Your task to perform on an android device: Add dell xps to the cart on costco, then select checkout. Image 0: 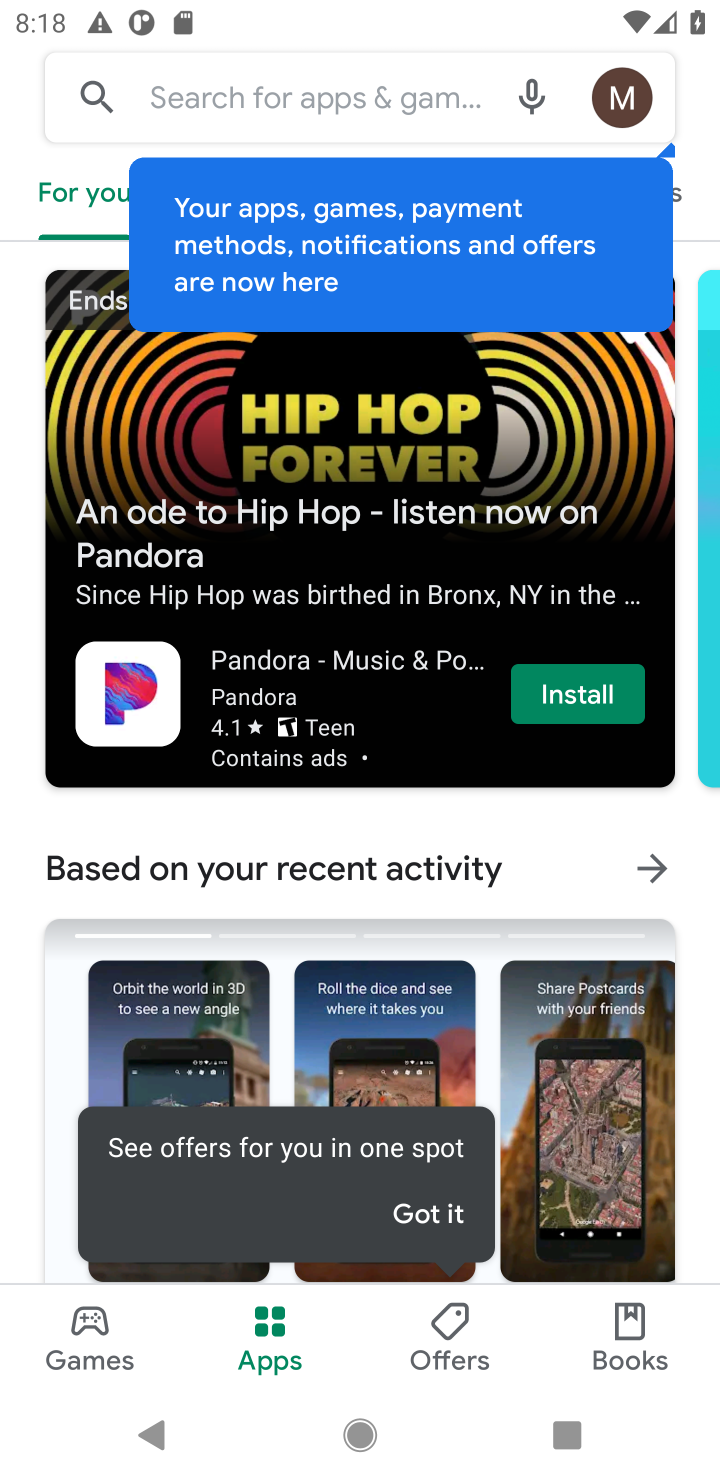
Step 0: press home button
Your task to perform on an android device: Add dell xps to the cart on costco, then select checkout. Image 1: 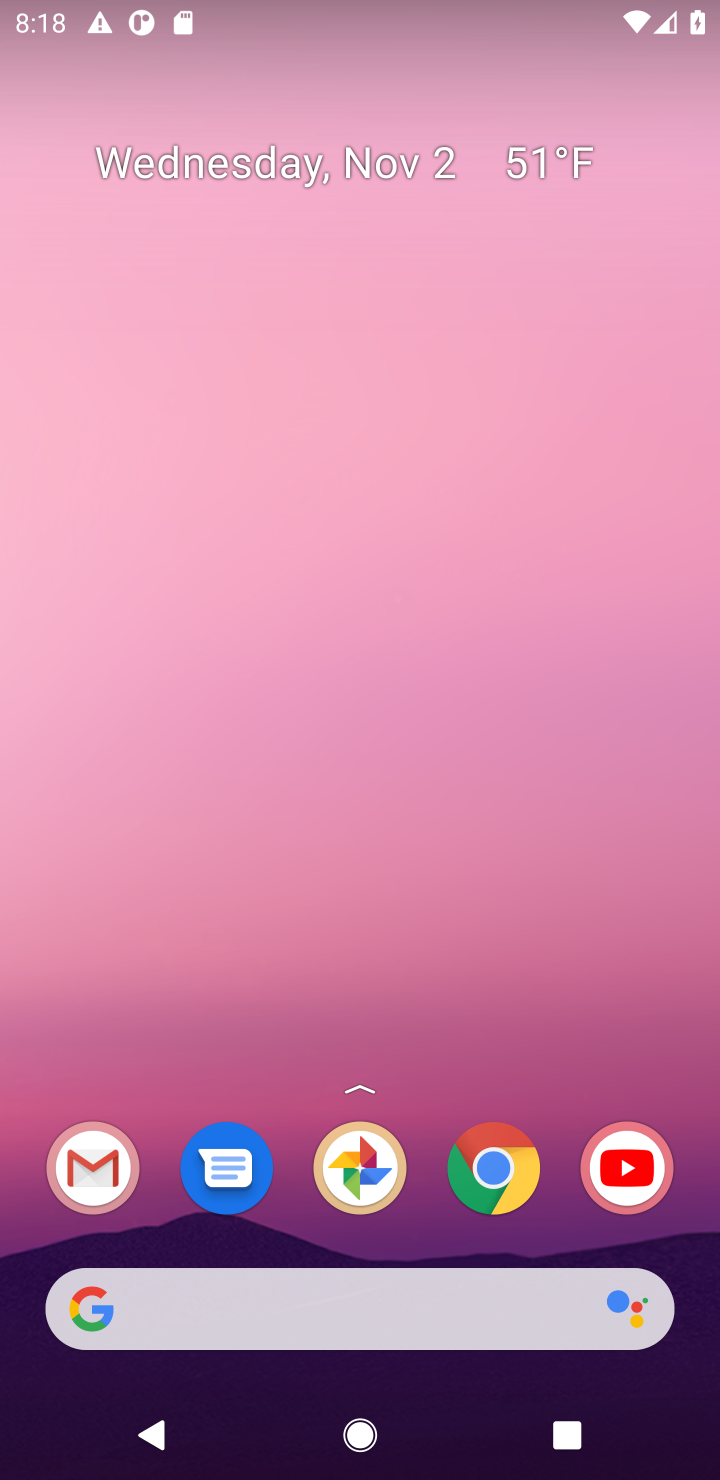
Step 1: click (336, 1312)
Your task to perform on an android device: Add dell xps to the cart on costco, then select checkout. Image 2: 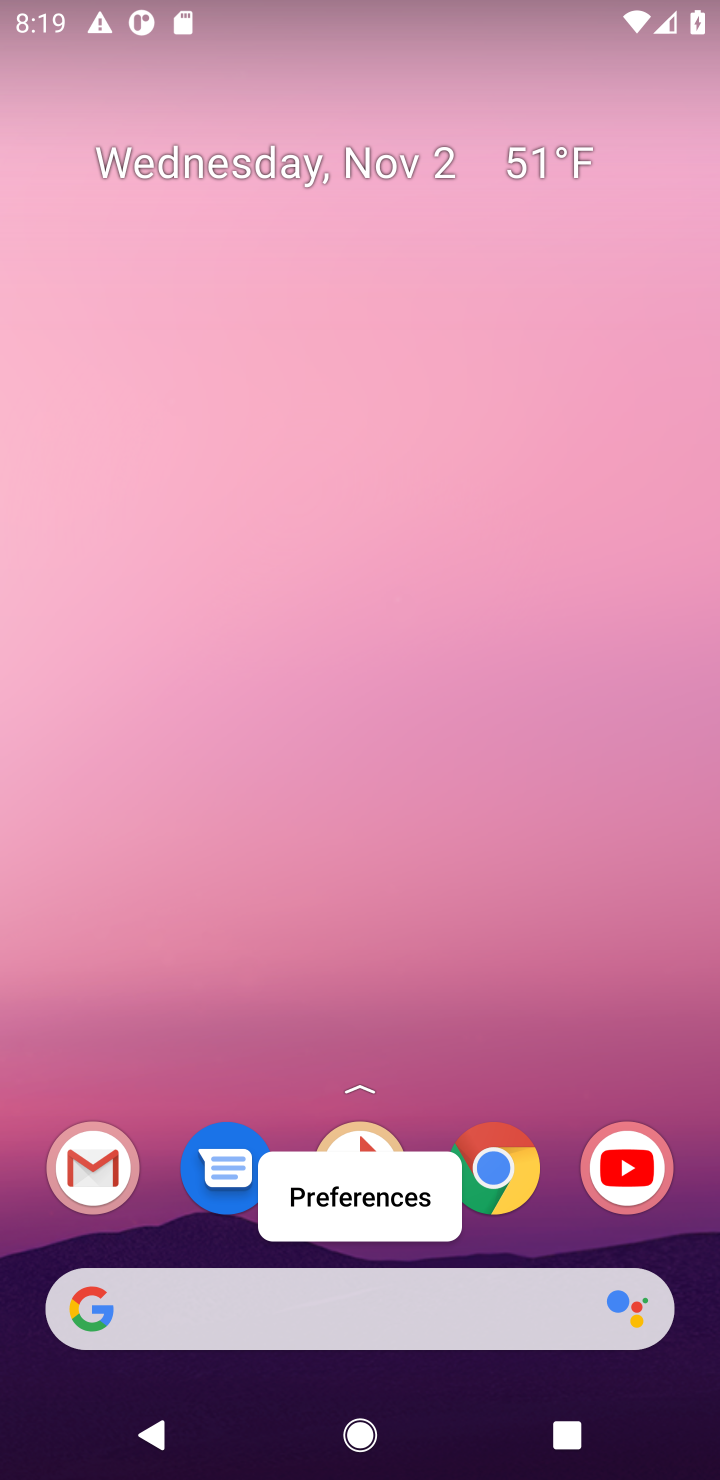
Step 2: type "costco"
Your task to perform on an android device: Add dell xps to the cart on costco, then select checkout. Image 3: 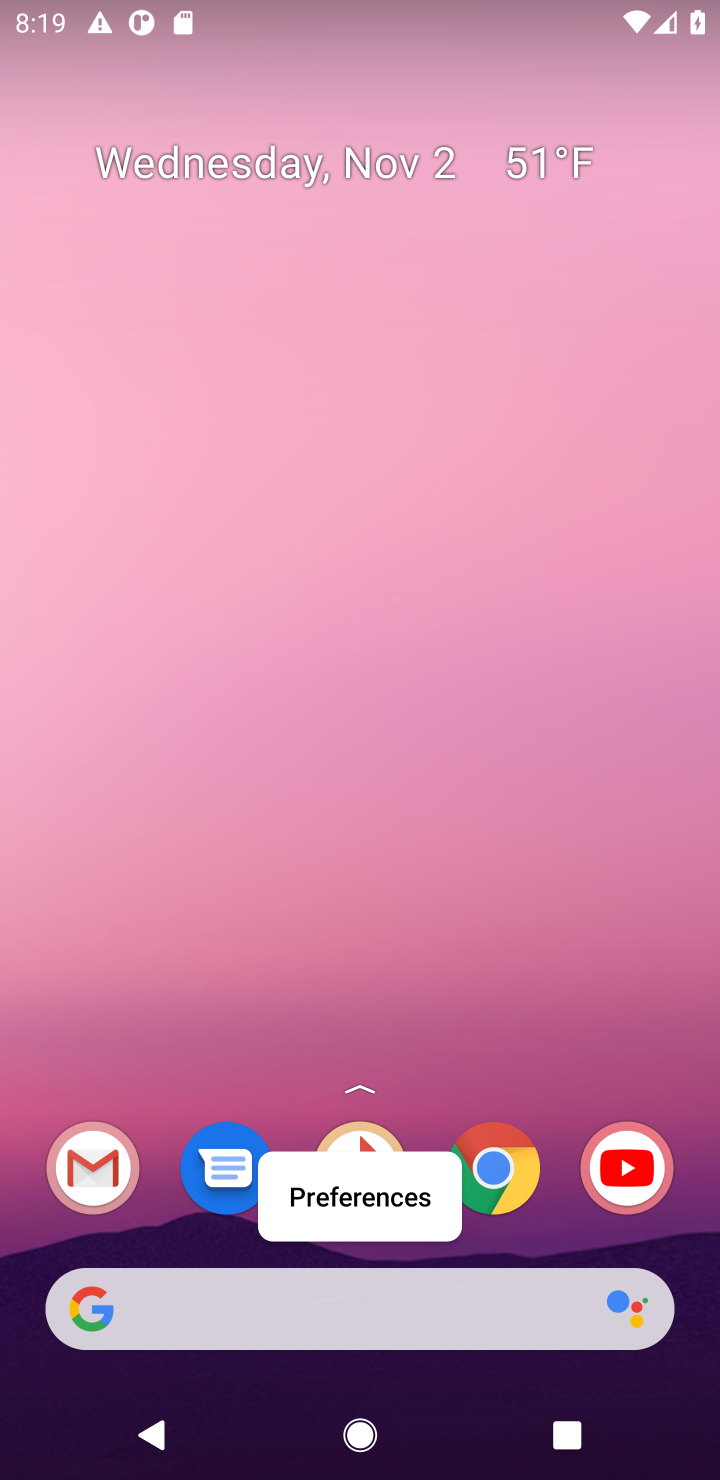
Step 3: click (376, 1292)
Your task to perform on an android device: Add dell xps to the cart on costco, then select checkout. Image 4: 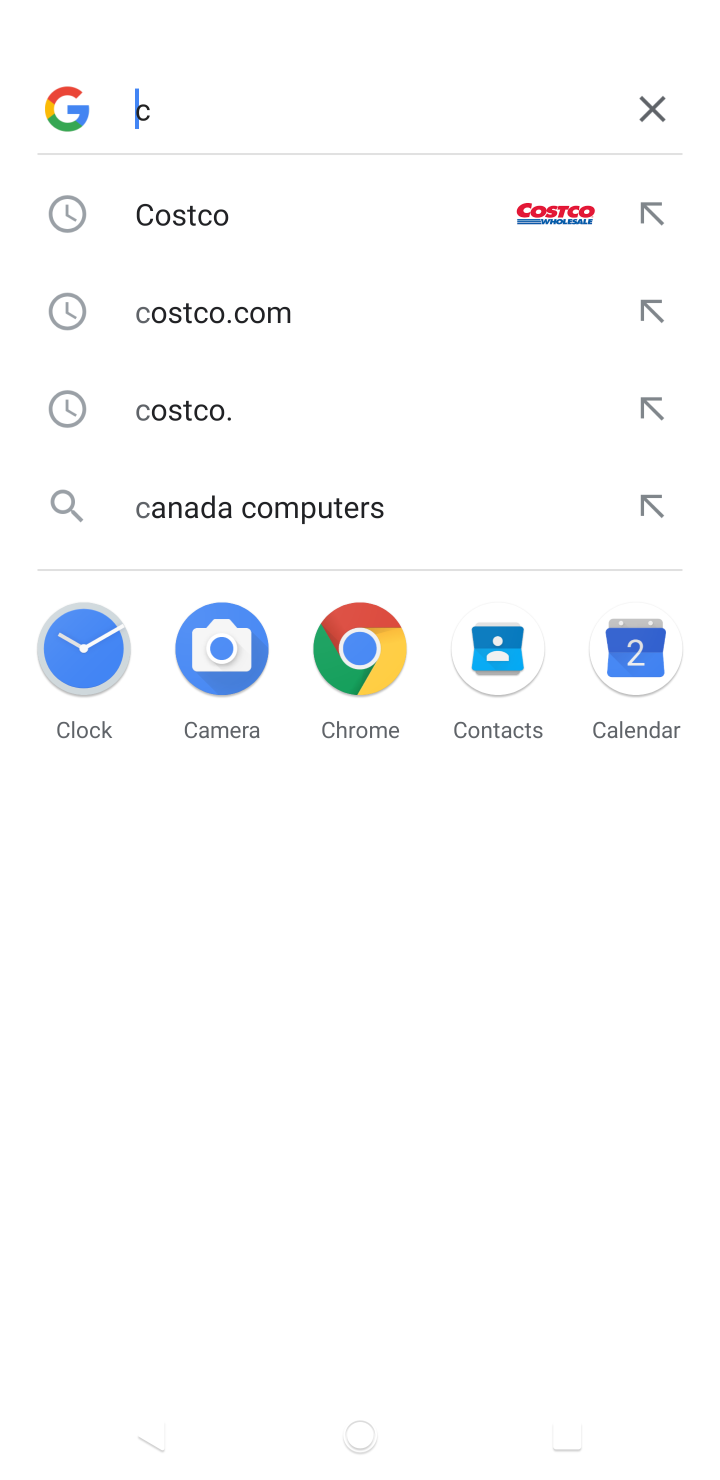
Step 4: click (519, 1170)
Your task to perform on an android device: Add dell xps to the cart on costco, then select checkout. Image 5: 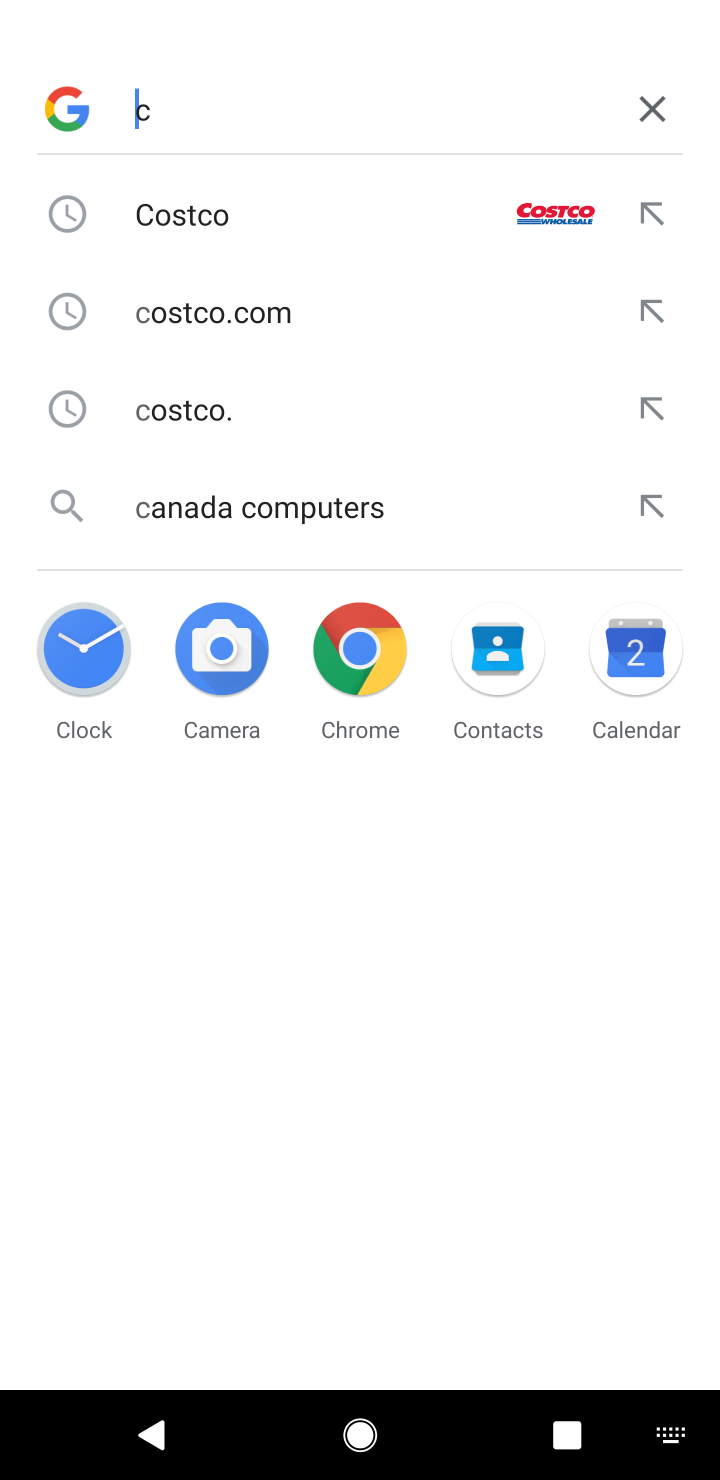
Step 5: click (203, 219)
Your task to perform on an android device: Add dell xps to the cart on costco, then select checkout. Image 6: 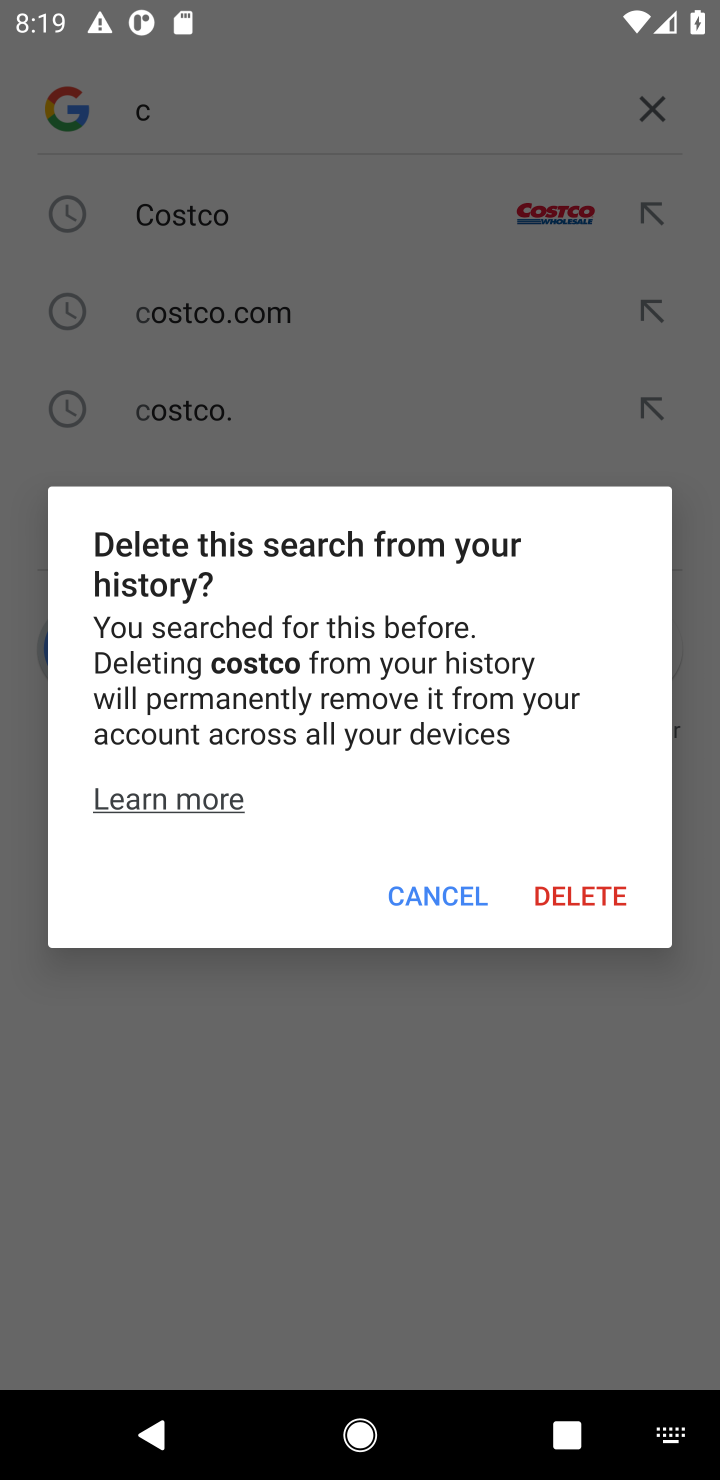
Step 6: click (426, 900)
Your task to perform on an android device: Add dell xps to the cart on costco, then select checkout. Image 7: 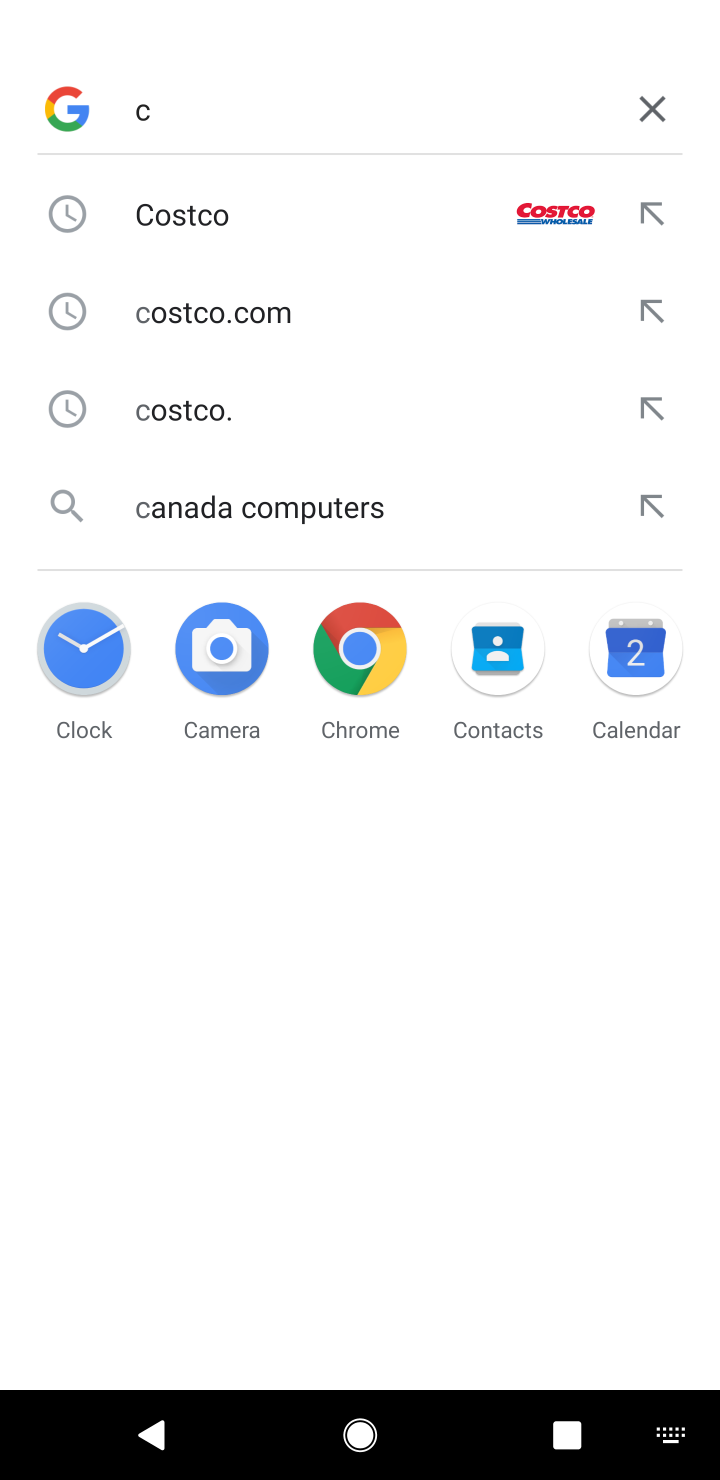
Step 7: click (71, 319)
Your task to perform on an android device: Add dell xps to the cart on costco, then select checkout. Image 8: 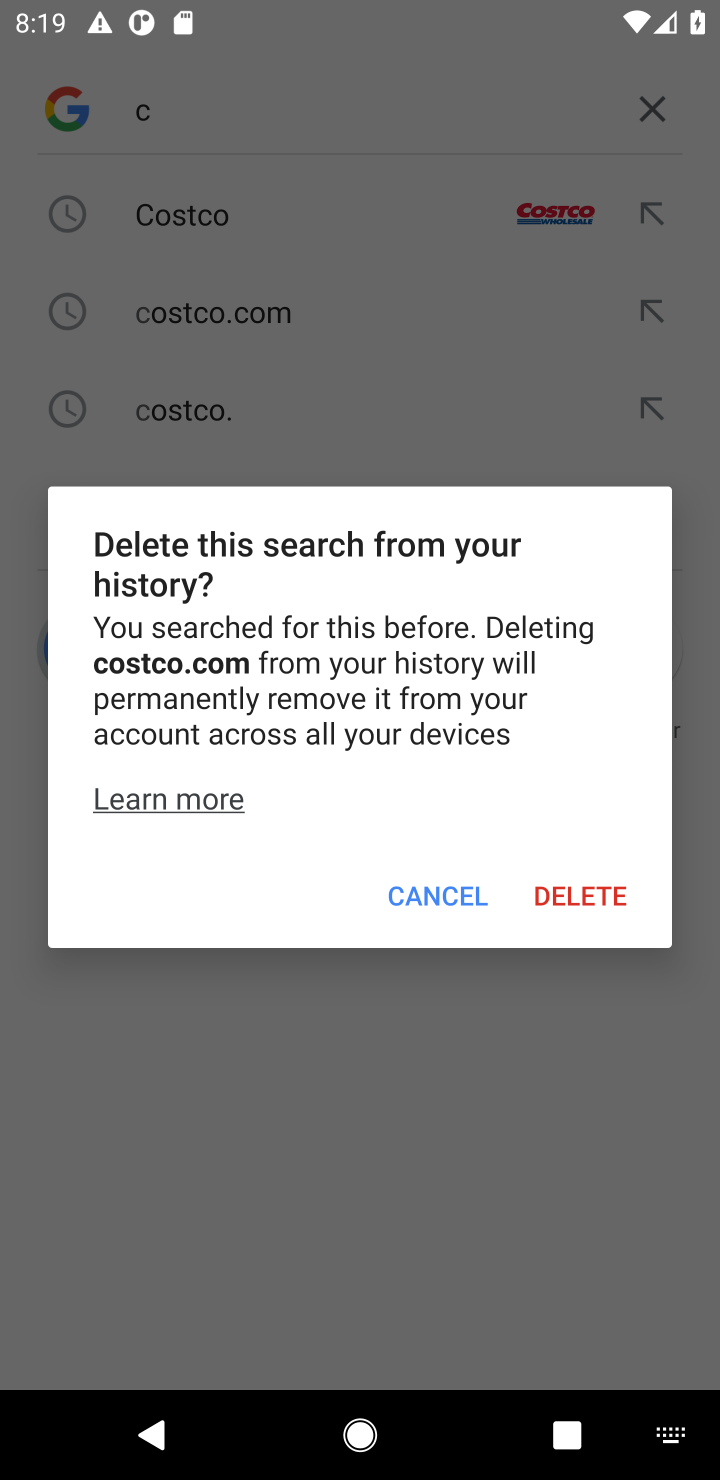
Step 8: click (425, 869)
Your task to perform on an android device: Add dell xps to the cart on costco, then select checkout. Image 9: 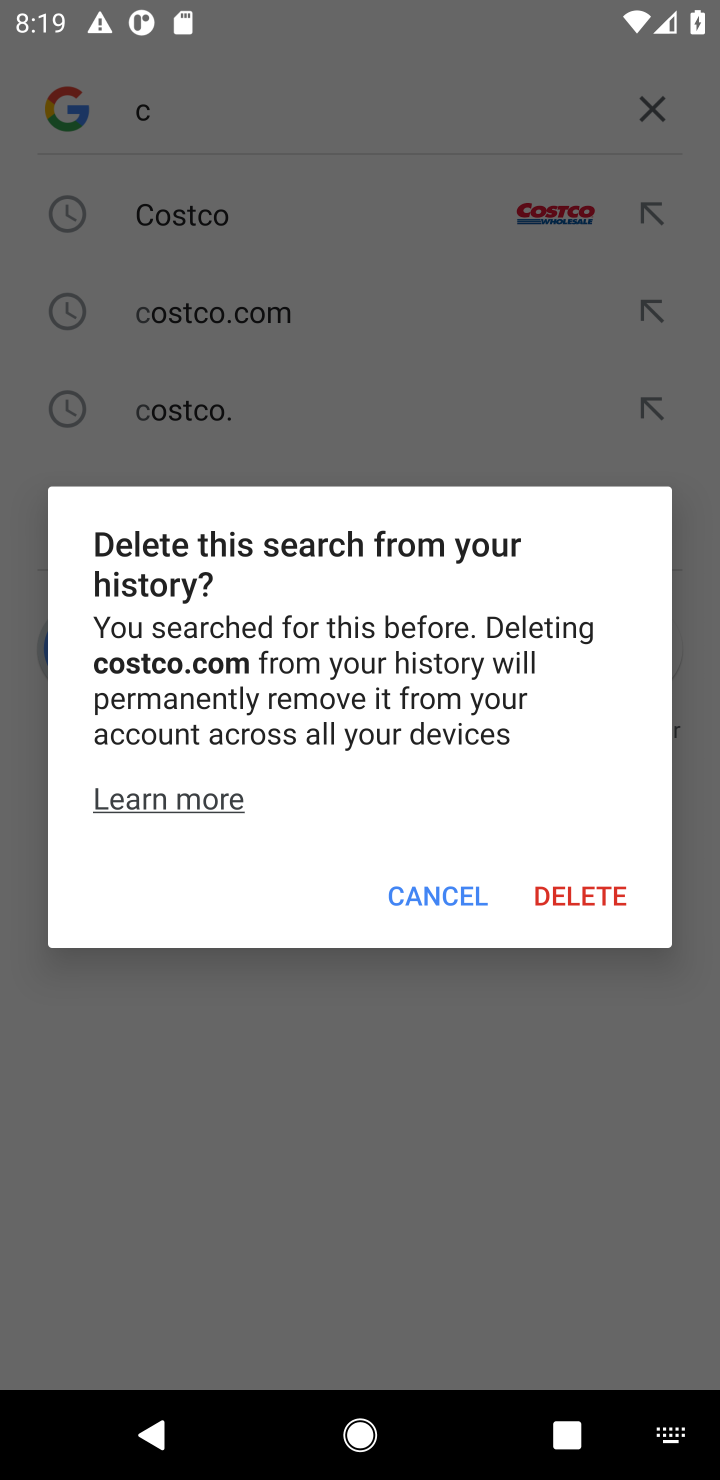
Step 9: click (432, 887)
Your task to perform on an android device: Add dell xps to the cart on costco, then select checkout. Image 10: 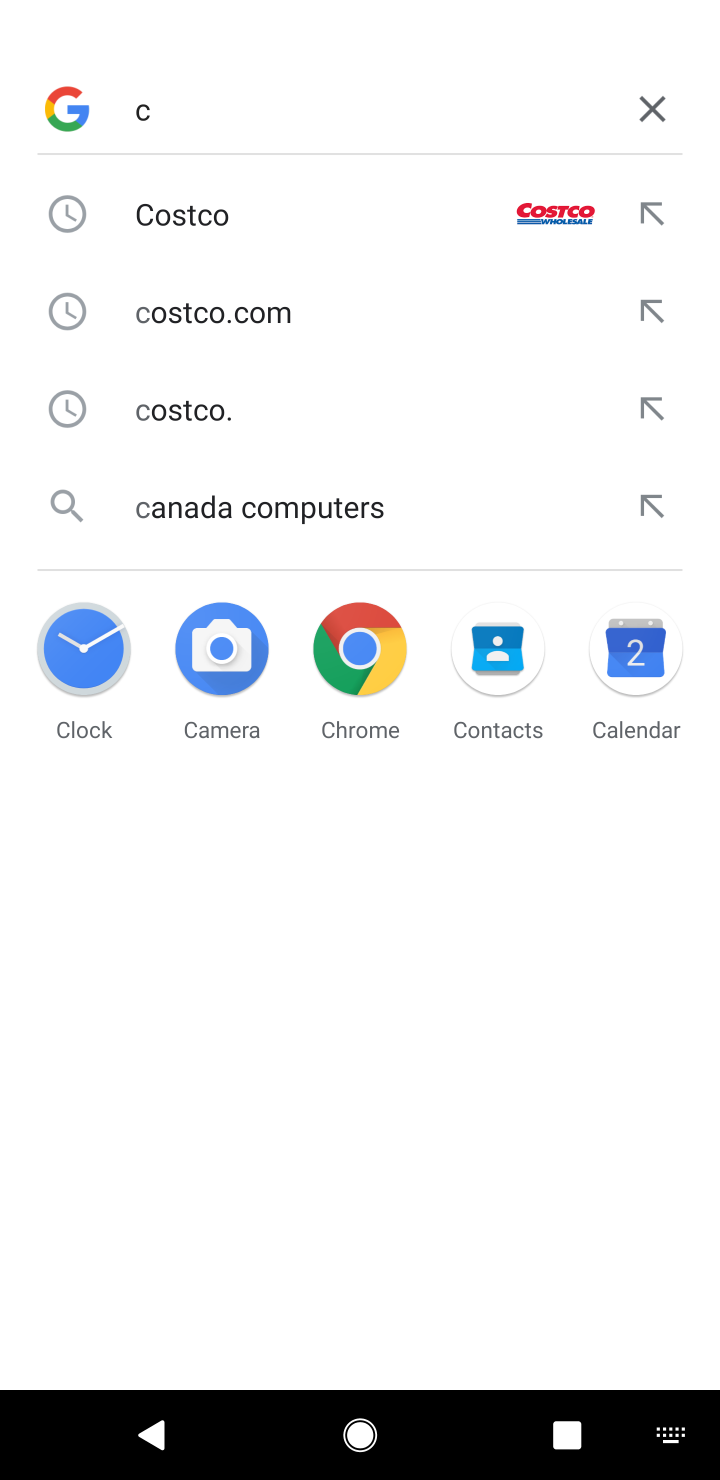
Step 10: click (646, 107)
Your task to perform on an android device: Add dell xps to the cart on costco, then select checkout. Image 11: 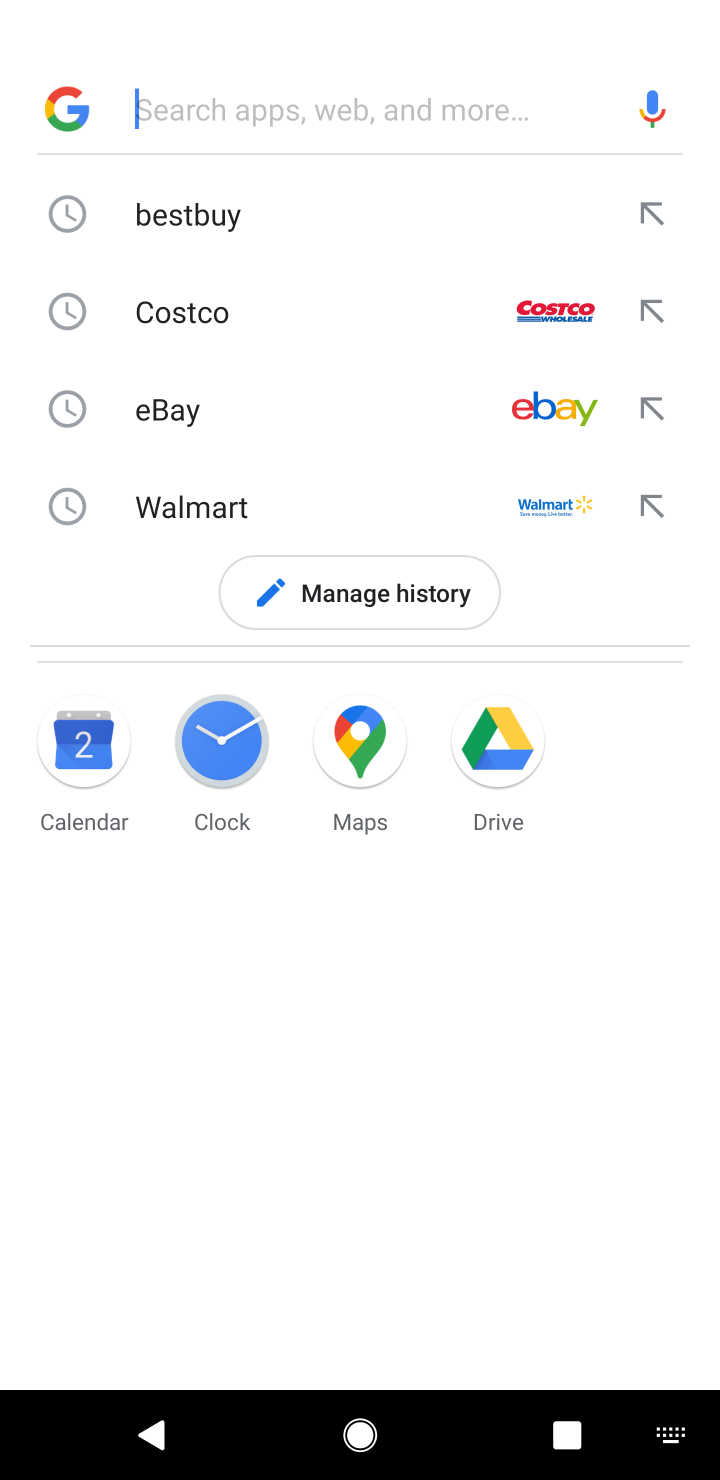
Step 11: click (243, 303)
Your task to perform on an android device: Add dell xps to the cart on costco, then select checkout. Image 12: 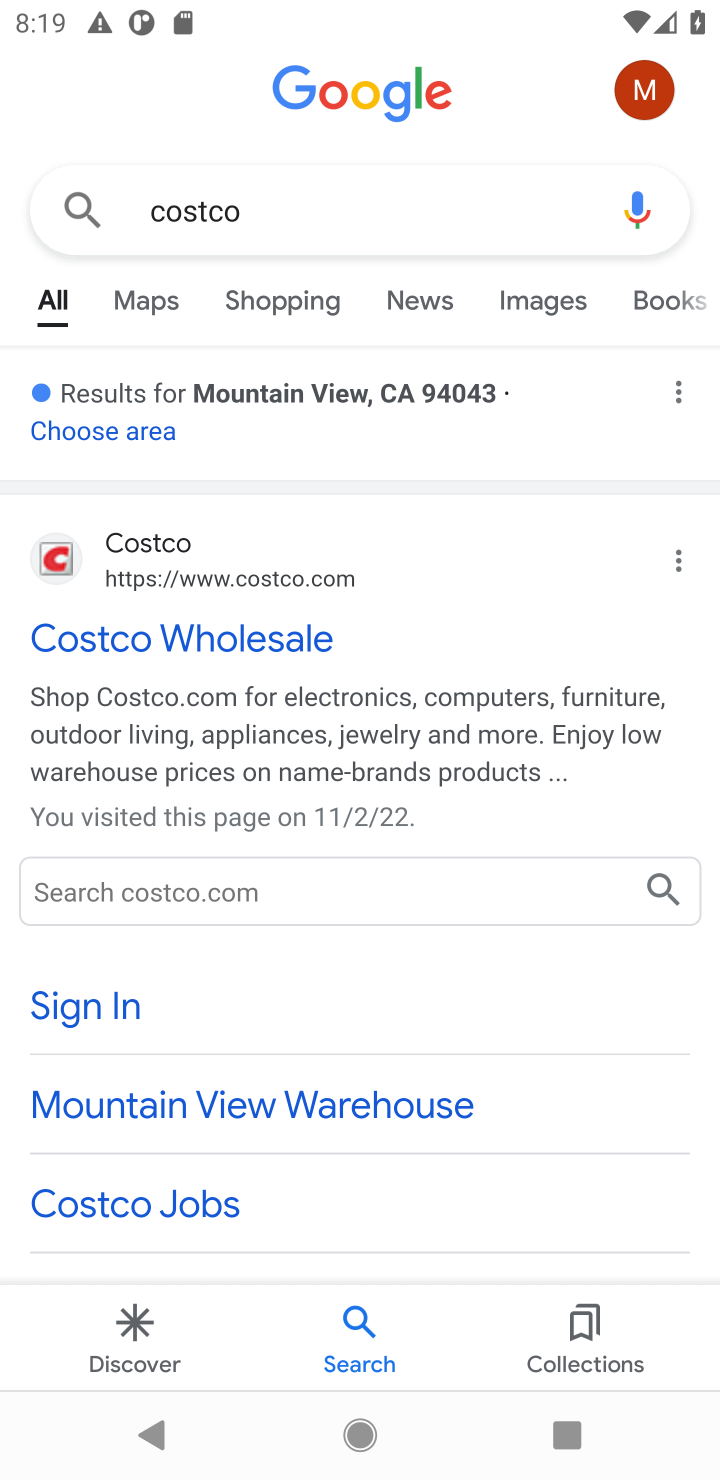
Step 12: click (253, 614)
Your task to perform on an android device: Add dell xps to the cart on costco, then select checkout. Image 13: 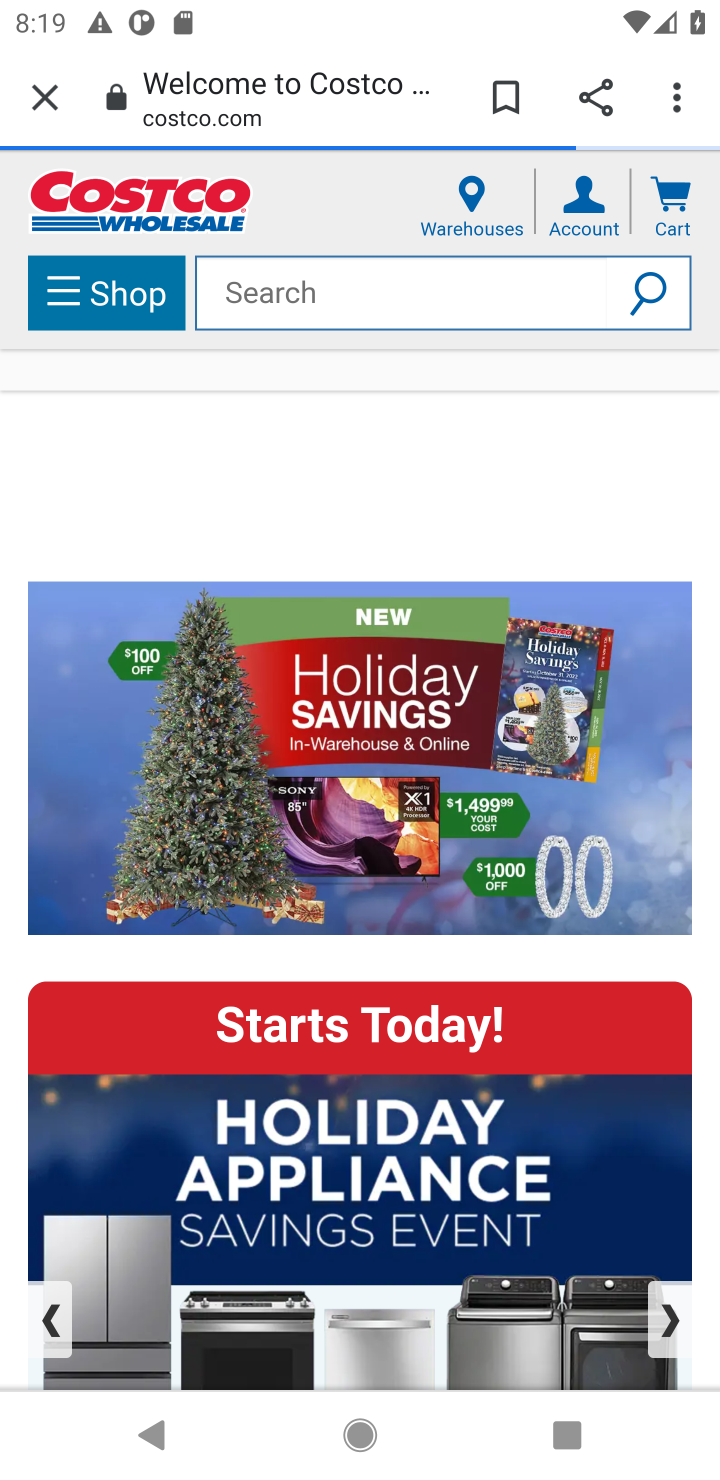
Step 13: click (282, 276)
Your task to perform on an android device: Add dell xps to the cart on costco, then select checkout. Image 14: 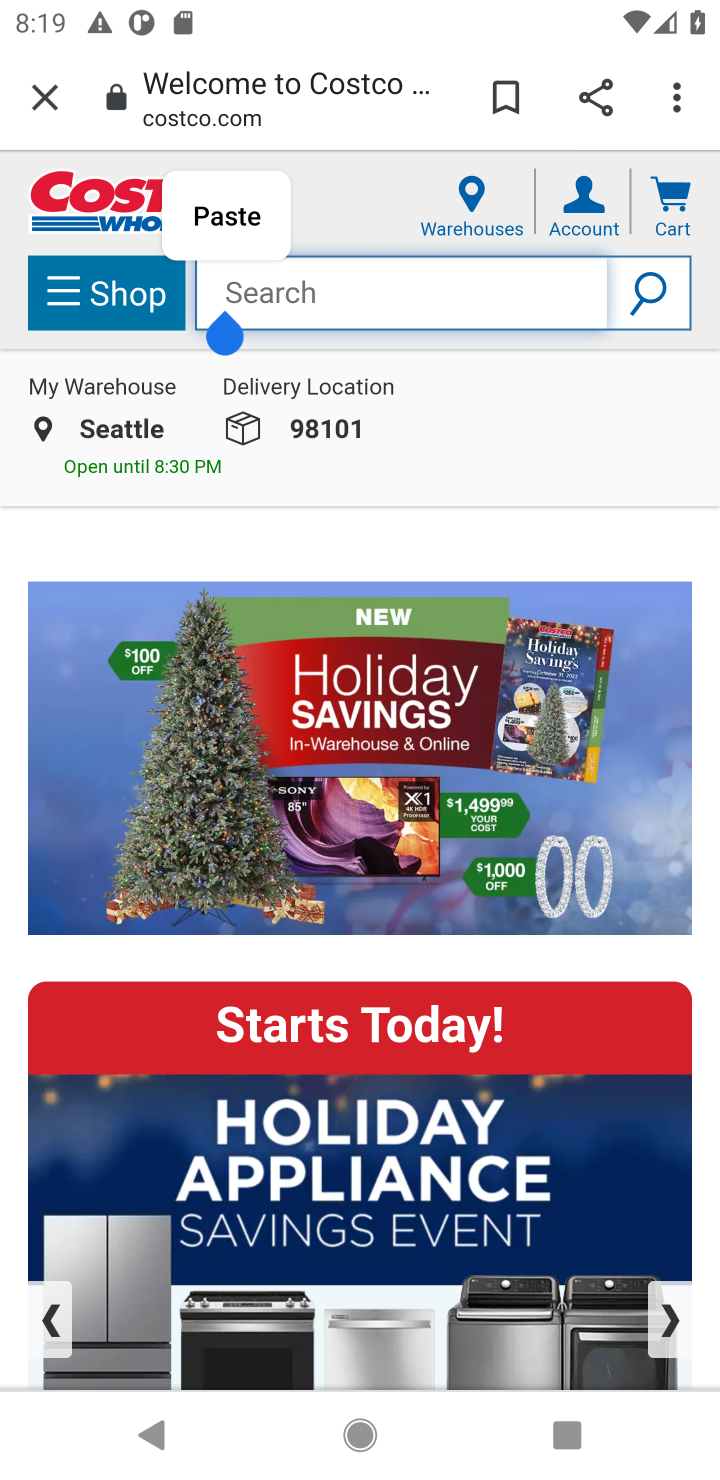
Step 14: type "dell xps"
Your task to perform on an android device: Add dell xps to the cart on costco, then select checkout. Image 15: 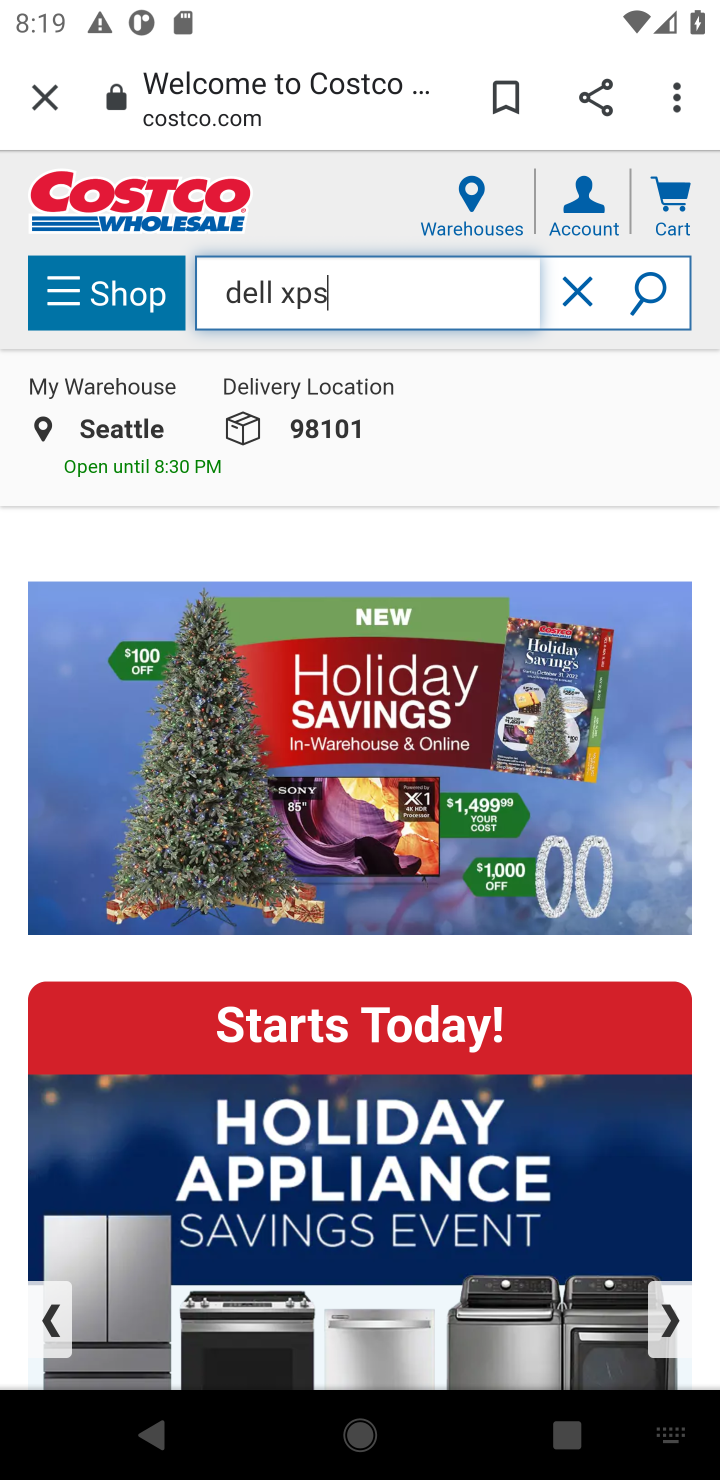
Step 15: type ""
Your task to perform on an android device: Add dell xps to the cart on costco, then select checkout. Image 16: 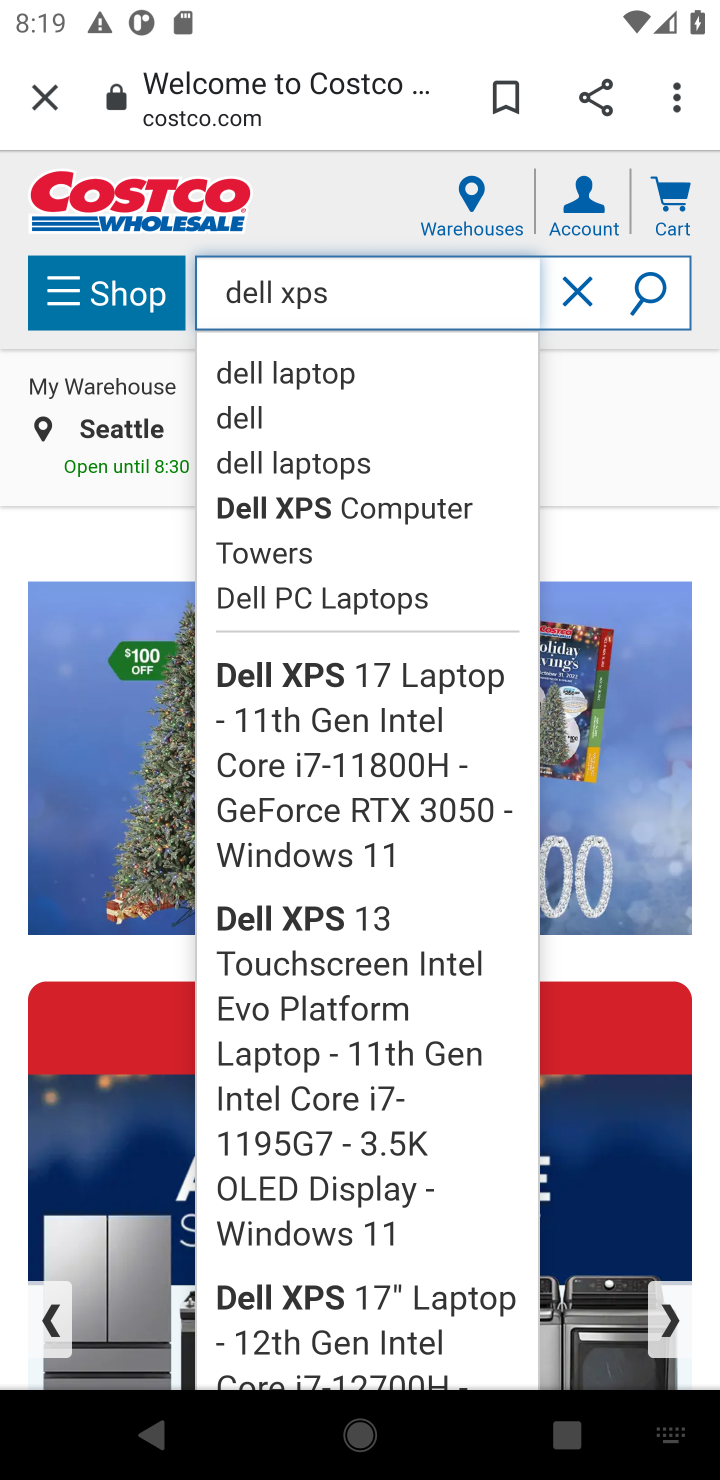
Step 16: press enter
Your task to perform on an android device: Add dell xps to the cart on costco, then select checkout. Image 17: 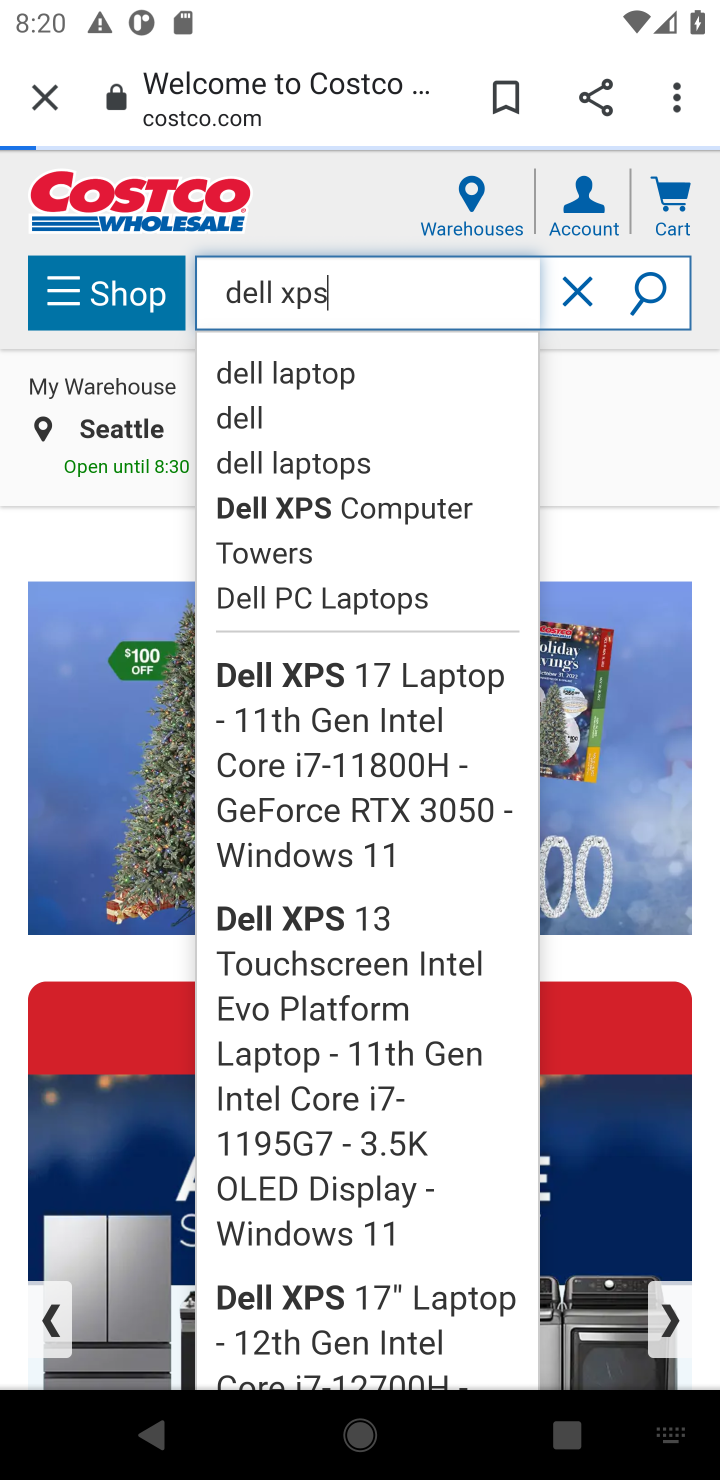
Step 17: press enter
Your task to perform on an android device: Add dell xps to the cart on costco, then select checkout. Image 18: 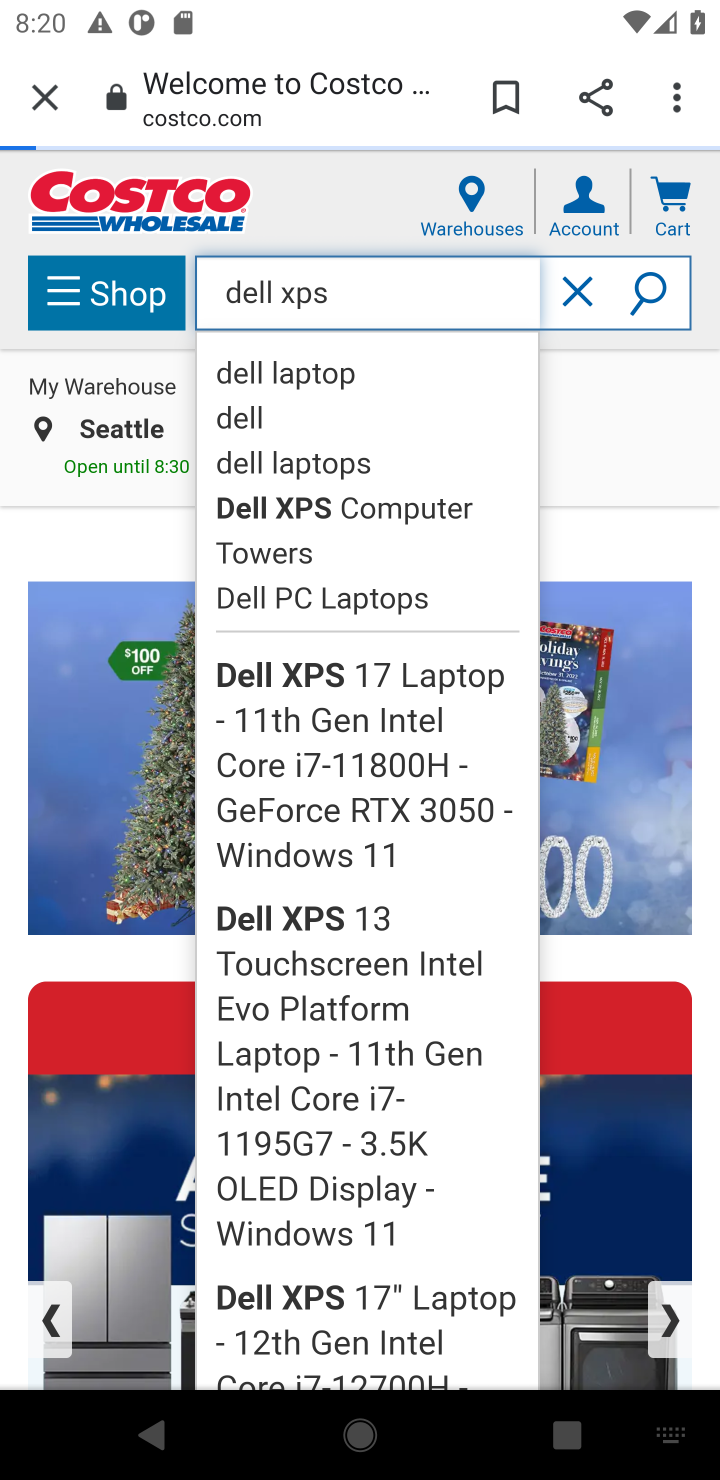
Step 18: press enter
Your task to perform on an android device: Add dell xps to the cart on costco, then select checkout. Image 19: 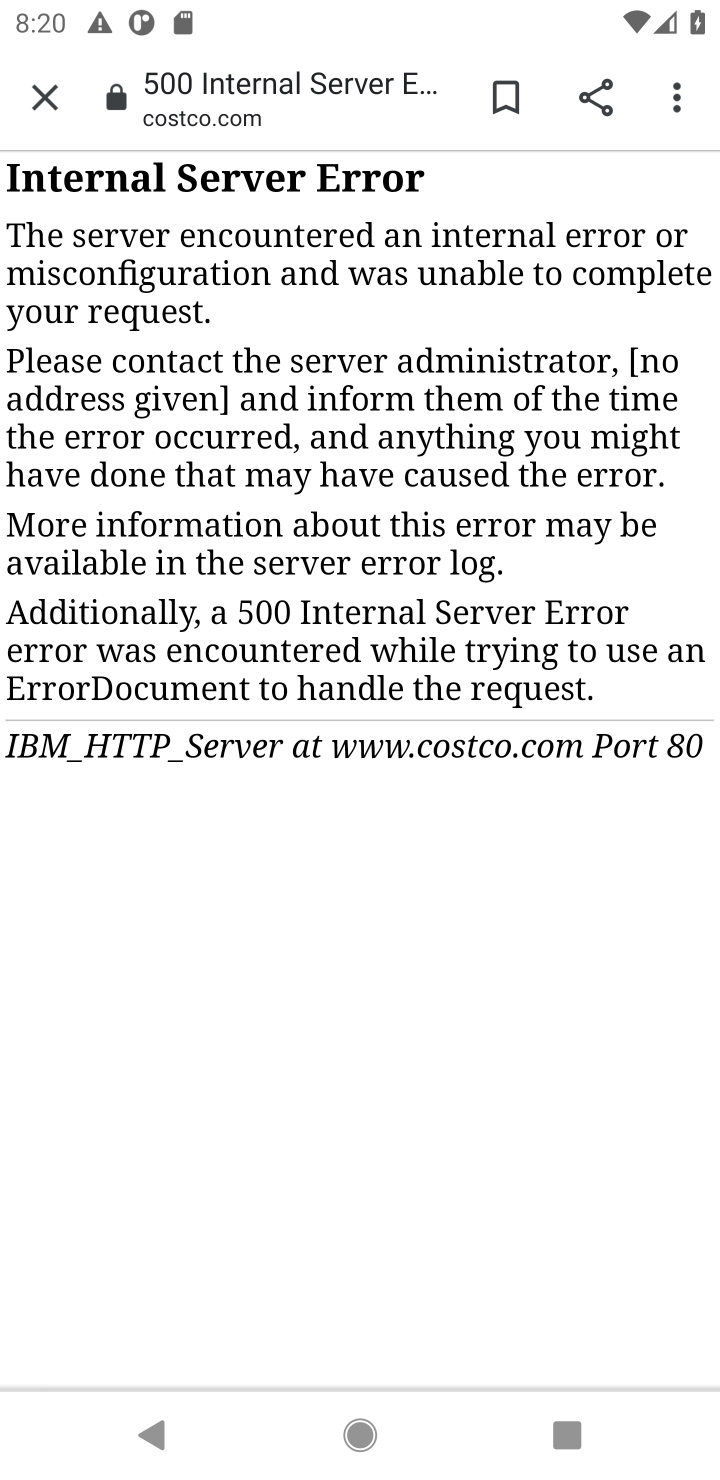
Step 19: press back button
Your task to perform on an android device: Add dell xps to the cart on costco, then select checkout. Image 20: 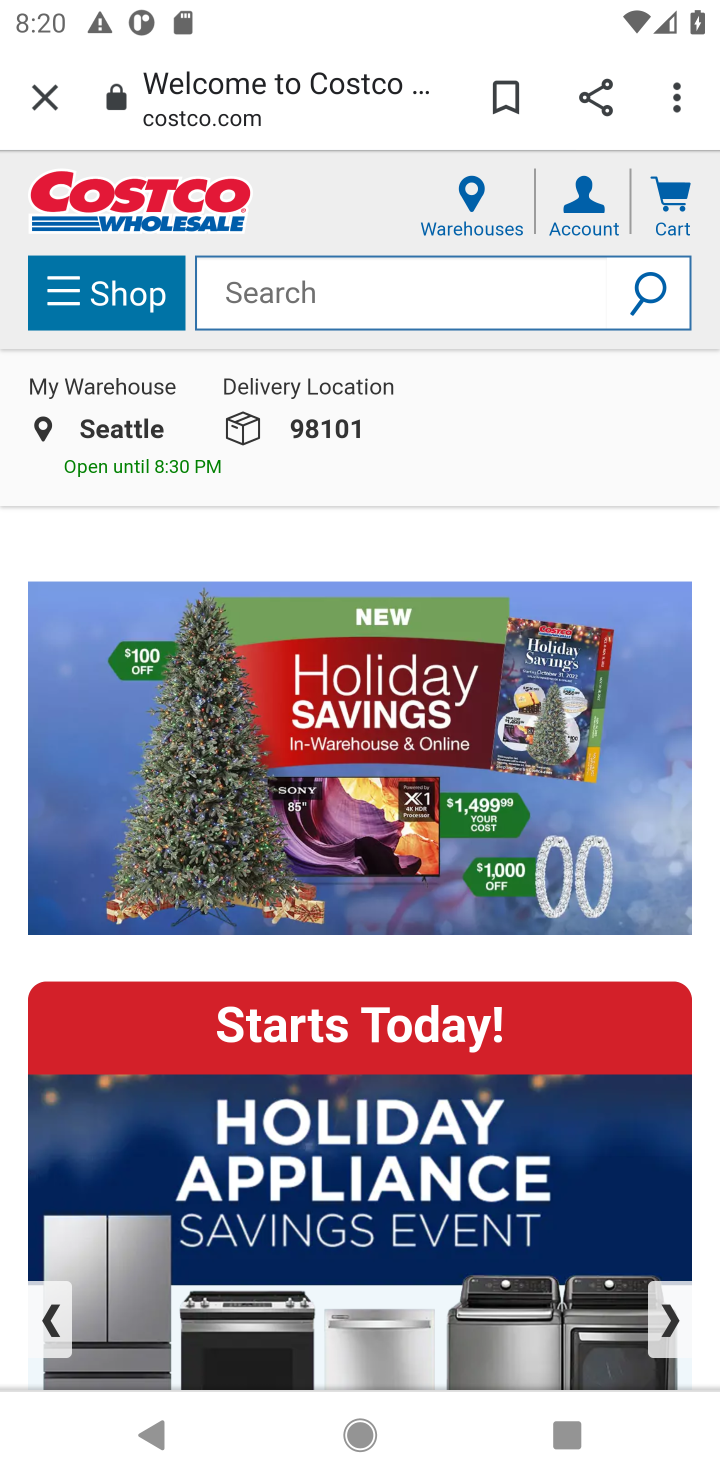
Step 20: click (322, 312)
Your task to perform on an android device: Add dell xps to the cart on costco, then select checkout. Image 21: 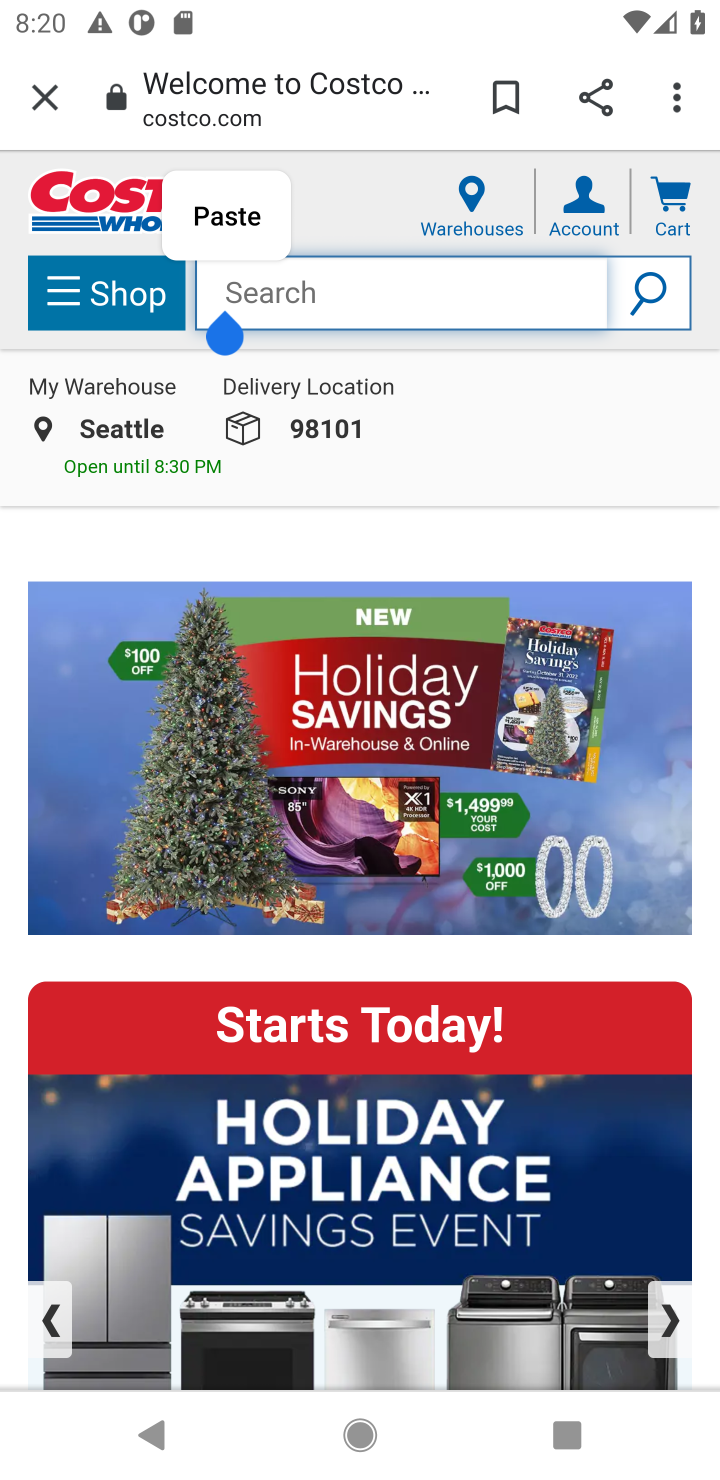
Step 21: type "dell xps"
Your task to perform on an android device: Add dell xps to the cart on costco, then select checkout. Image 22: 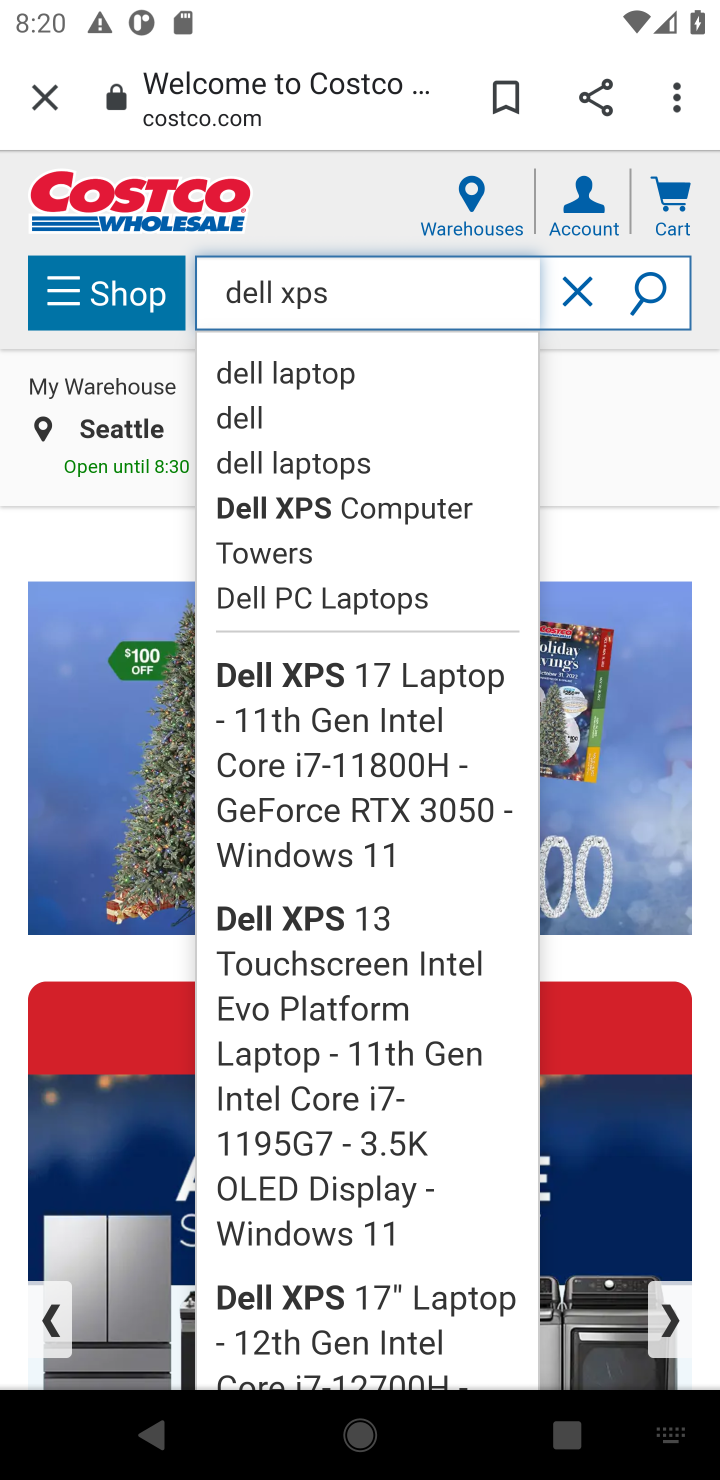
Step 22: press enter
Your task to perform on an android device: Add dell xps to the cart on costco, then select checkout. Image 23: 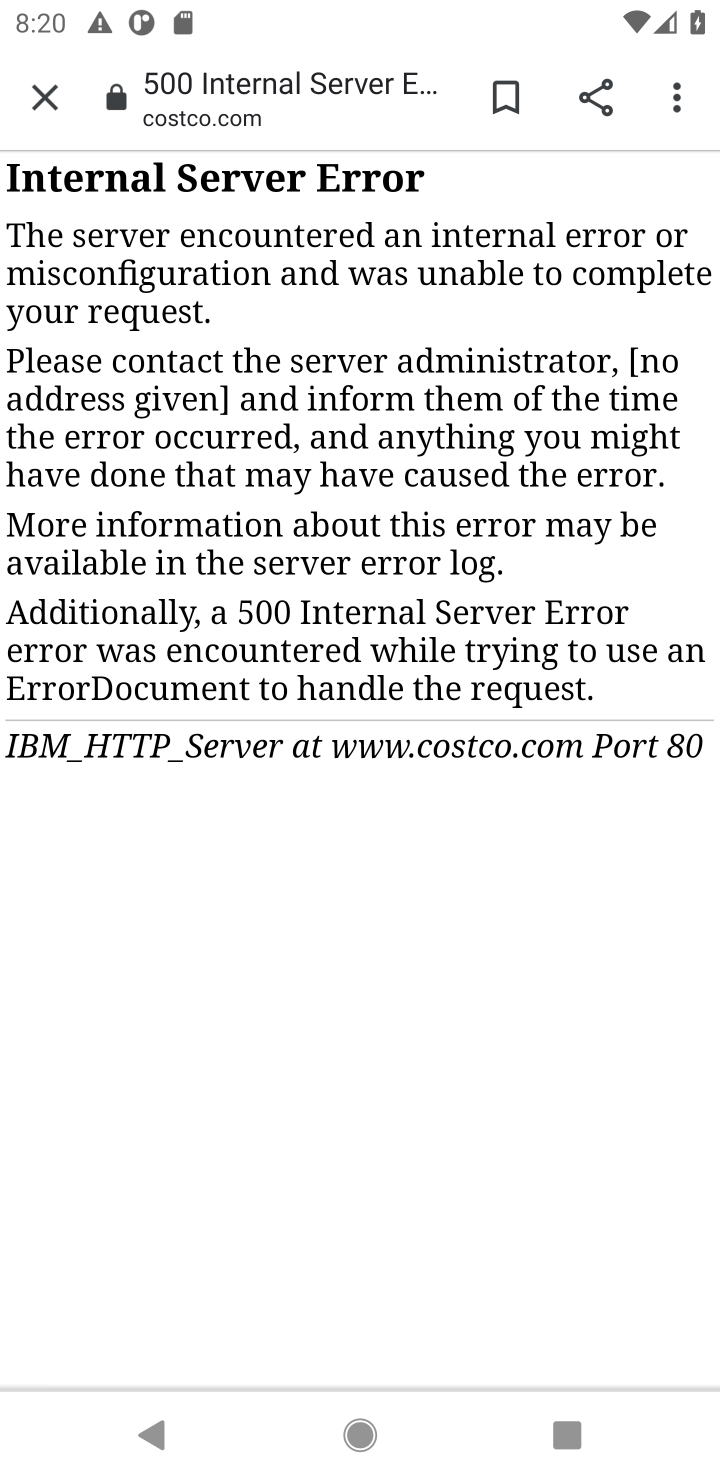
Step 23: task complete